Your task to perform on an android device: Set the phone to "Do not disturb". Image 0: 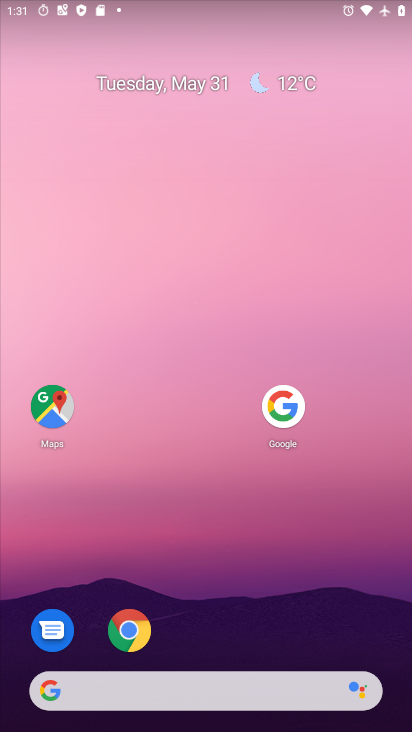
Step 0: press home button
Your task to perform on an android device: Set the phone to "Do not disturb". Image 1: 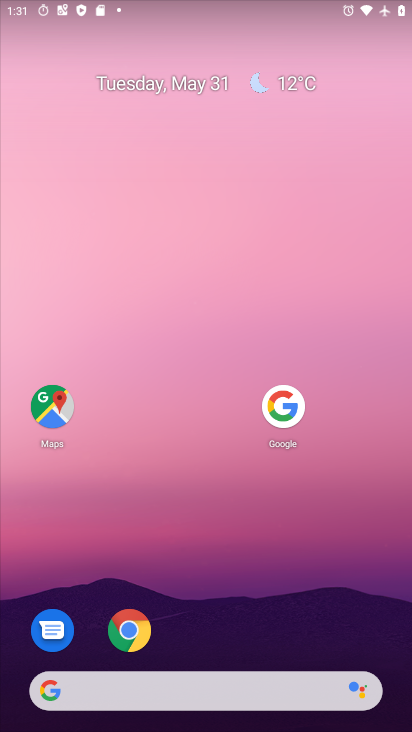
Step 1: drag from (172, 693) to (331, 167)
Your task to perform on an android device: Set the phone to "Do not disturb". Image 2: 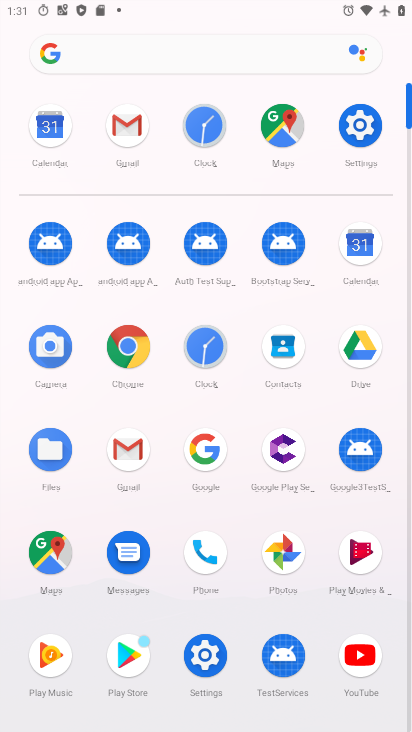
Step 2: click (354, 121)
Your task to perform on an android device: Set the phone to "Do not disturb". Image 3: 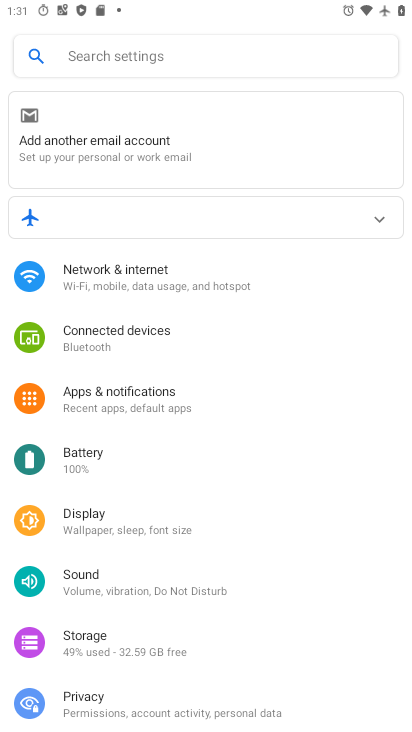
Step 3: click (137, 590)
Your task to perform on an android device: Set the phone to "Do not disturb". Image 4: 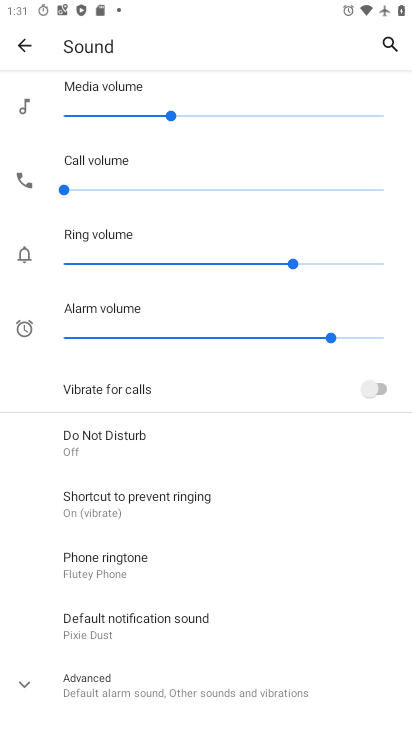
Step 4: click (105, 448)
Your task to perform on an android device: Set the phone to "Do not disturb". Image 5: 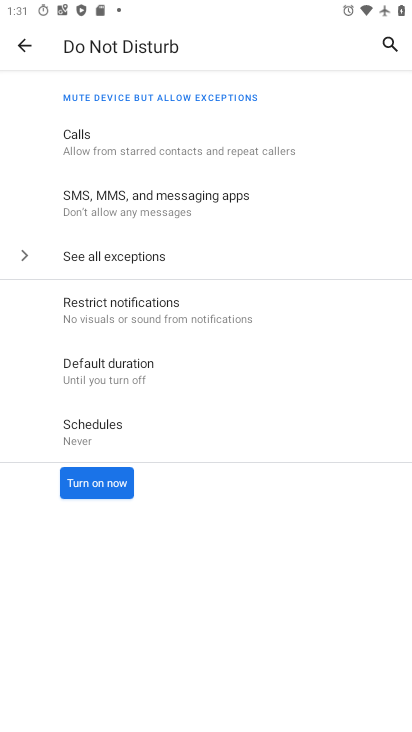
Step 5: click (104, 489)
Your task to perform on an android device: Set the phone to "Do not disturb". Image 6: 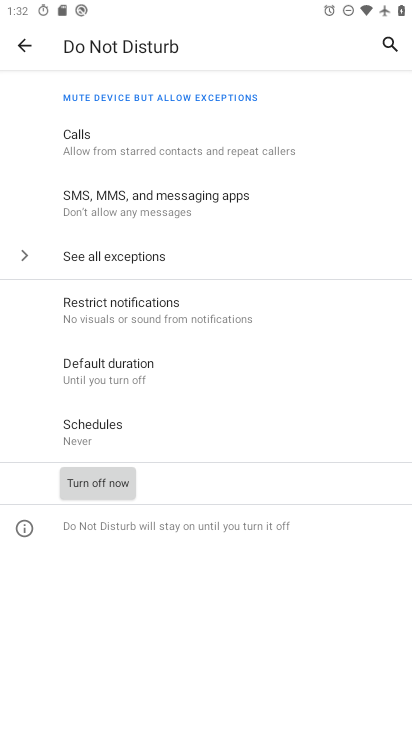
Step 6: task complete